Your task to perform on an android device: When is my next appointment? Image 0: 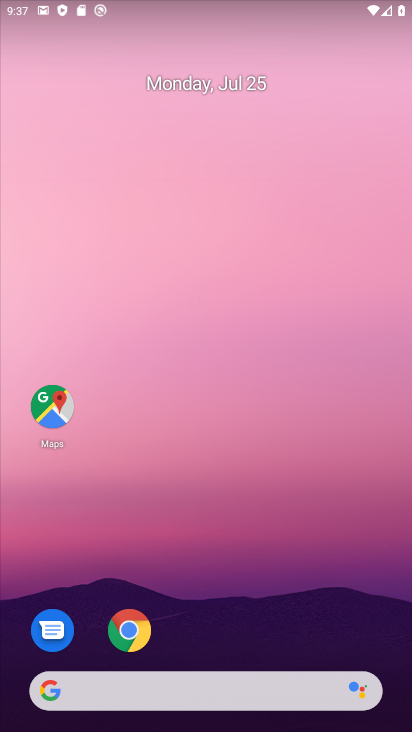
Step 0: press home button
Your task to perform on an android device: When is my next appointment? Image 1: 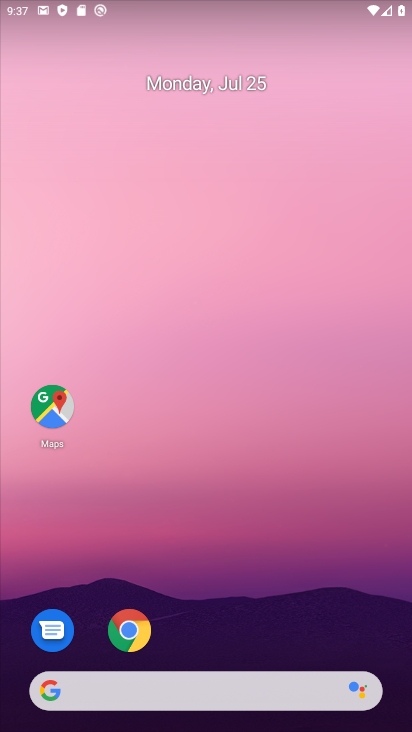
Step 1: drag from (310, 604) to (354, 89)
Your task to perform on an android device: When is my next appointment? Image 2: 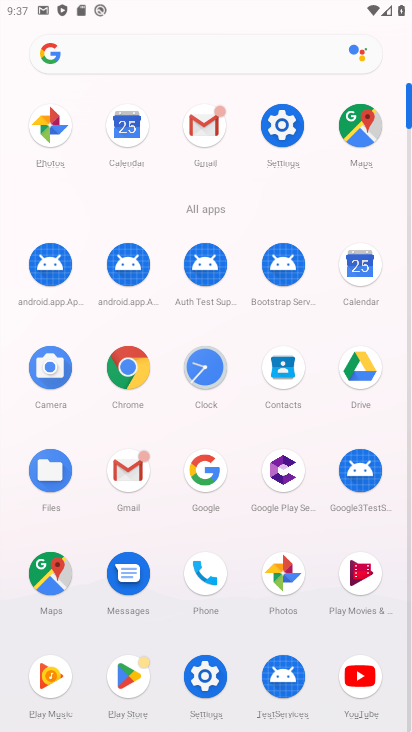
Step 2: click (371, 276)
Your task to perform on an android device: When is my next appointment? Image 3: 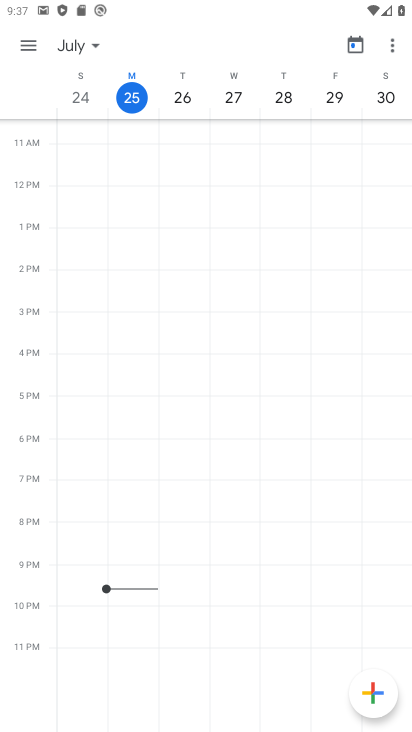
Step 3: click (390, 46)
Your task to perform on an android device: When is my next appointment? Image 4: 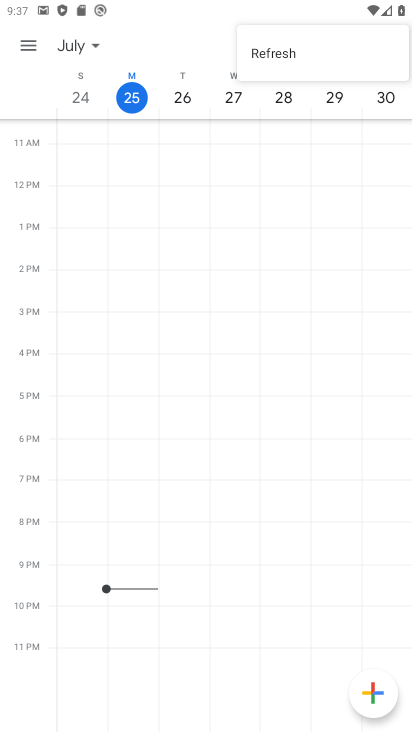
Step 4: click (31, 48)
Your task to perform on an android device: When is my next appointment? Image 5: 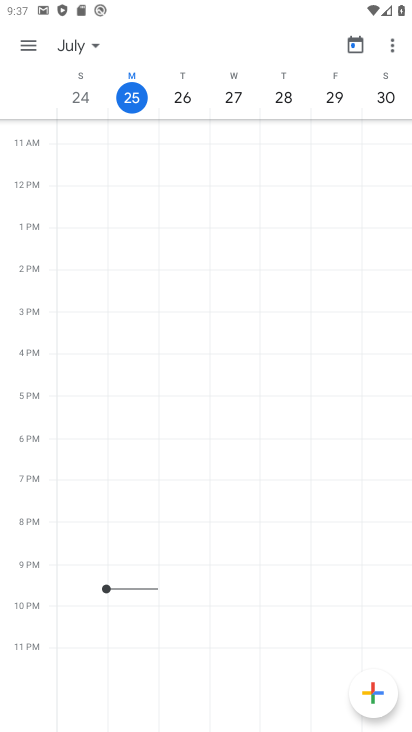
Step 5: click (24, 43)
Your task to perform on an android device: When is my next appointment? Image 6: 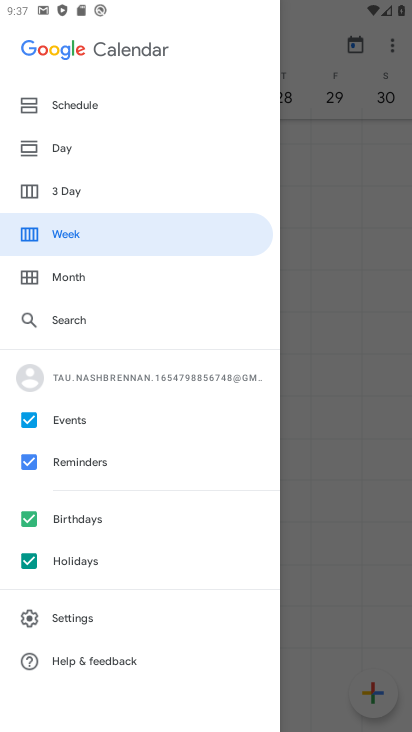
Step 6: click (70, 109)
Your task to perform on an android device: When is my next appointment? Image 7: 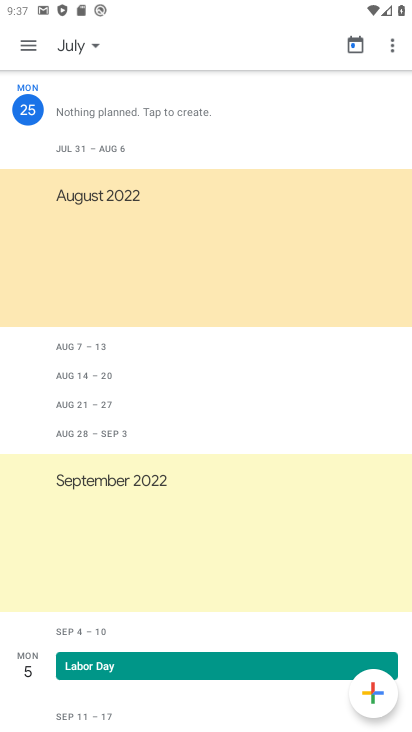
Step 7: task complete